Your task to perform on an android device: Go to privacy settings Image 0: 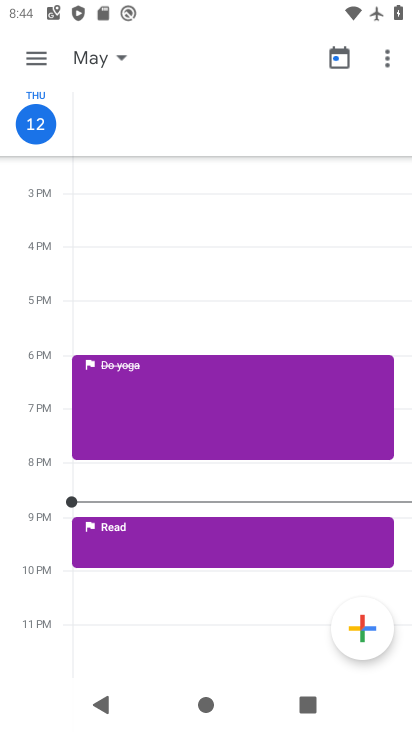
Step 0: press home button
Your task to perform on an android device: Go to privacy settings Image 1: 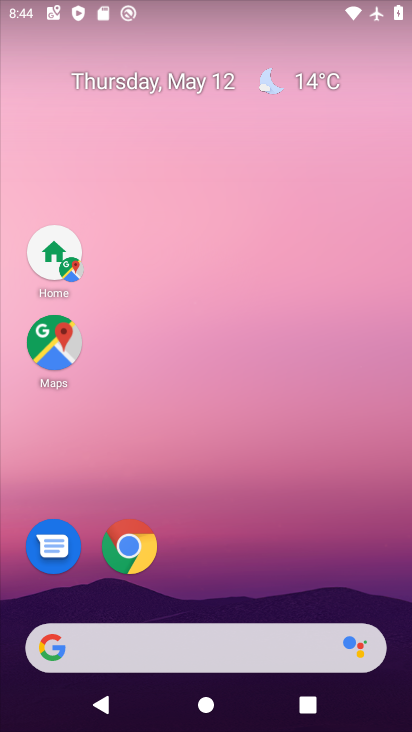
Step 1: drag from (212, 655) to (358, 152)
Your task to perform on an android device: Go to privacy settings Image 2: 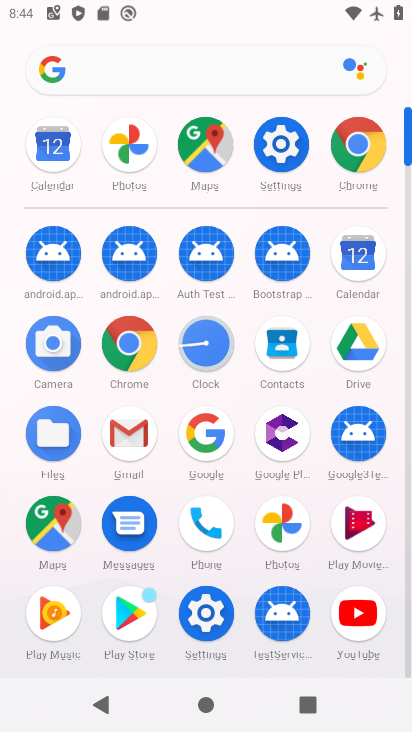
Step 2: click (286, 148)
Your task to perform on an android device: Go to privacy settings Image 3: 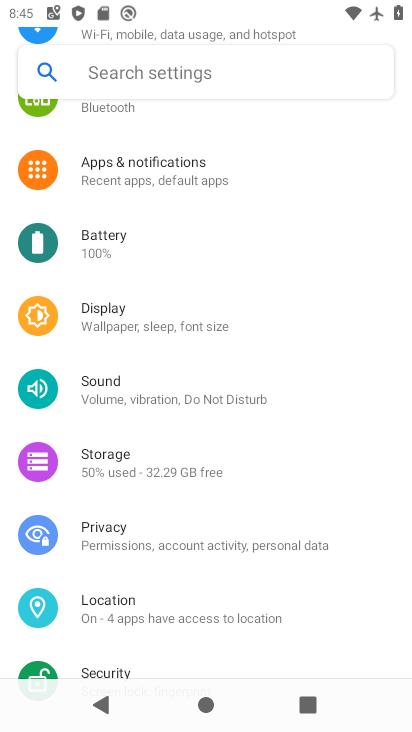
Step 3: click (134, 537)
Your task to perform on an android device: Go to privacy settings Image 4: 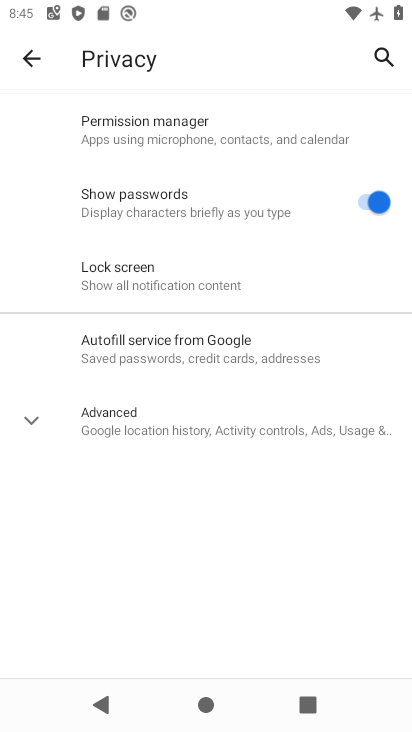
Step 4: task complete